Your task to perform on an android device: What is the recent news? Image 0: 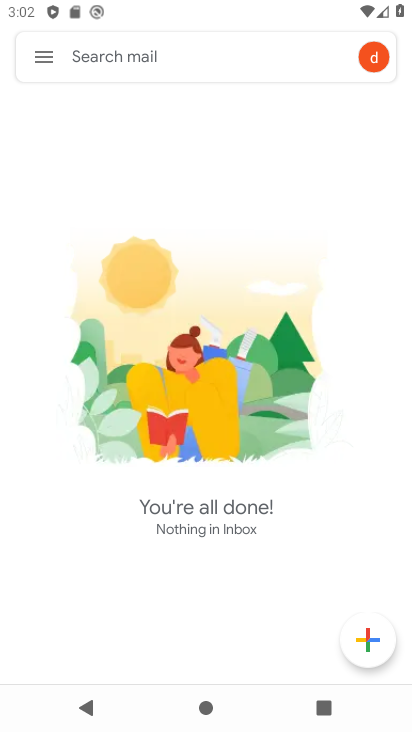
Step 0: press home button
Your task to perform on an android device: What is the recent news? Image 1: 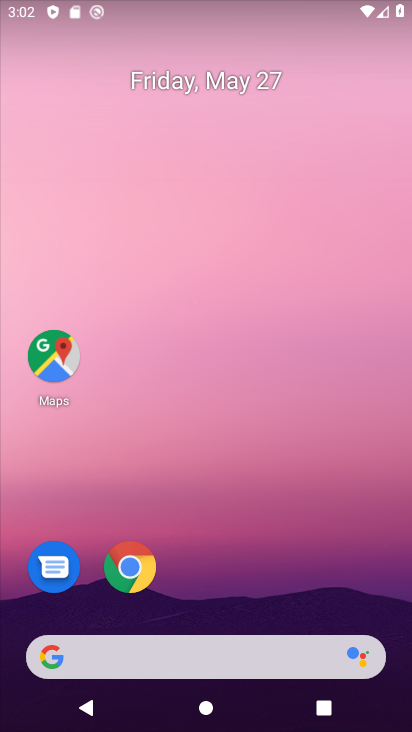
Step 1: task complete